Your task to perform on an android device: Open Yahoo.com Image 0: 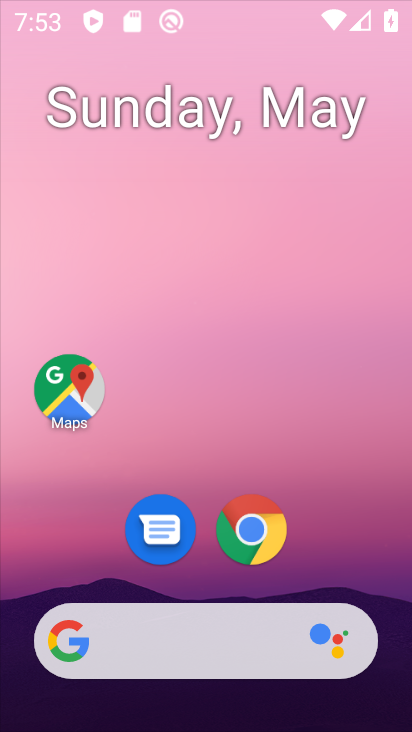
Step 0: click (269, 109)
Your task to perform on an android device: Open Yahoo.com Image 1: 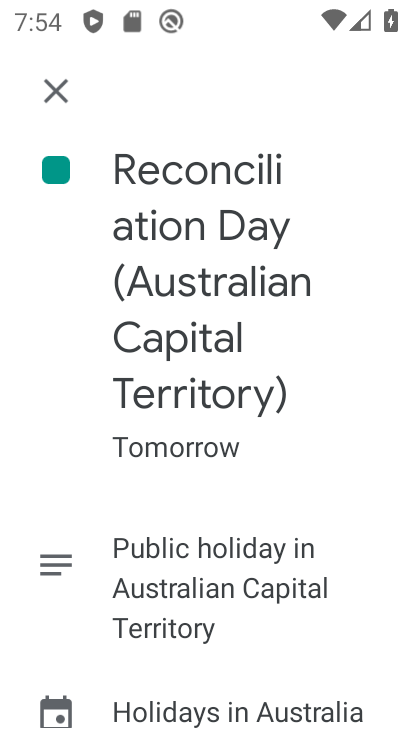
Step 1: press back button
Your task to perform on an android device: Open Yahoo.com Image 2: 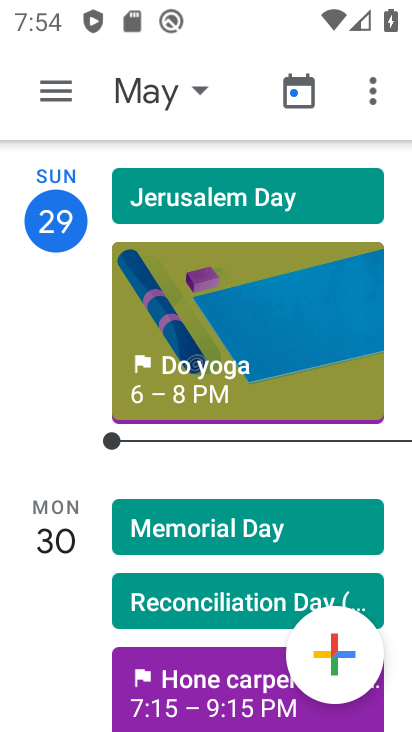
Step 2: press back button
Your task to perform on an android device: Open Yahoo.com Image 3: 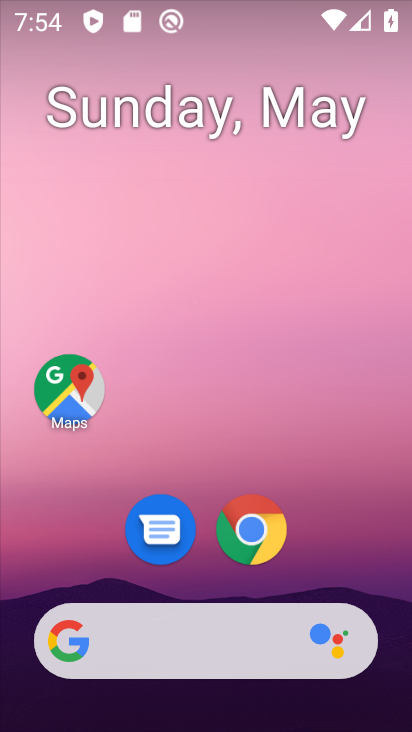
Step 3: click (244, 516)
Your task to perform on an android device: Open Yahoo.com Image 4: 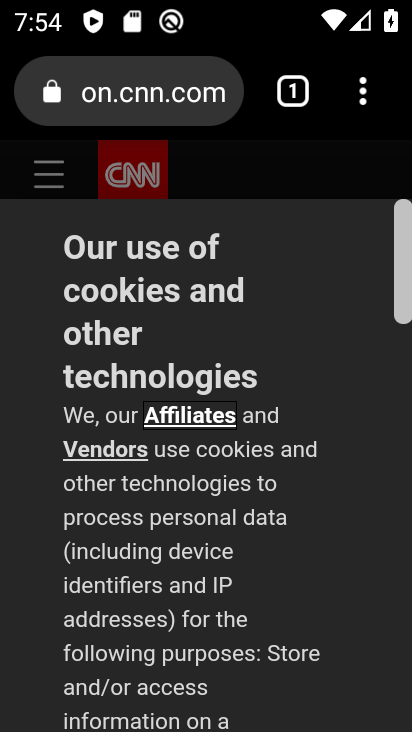
Step 4: click (284, 91)
Your task to perform on an android device: Open Yahoo.com Image 5: 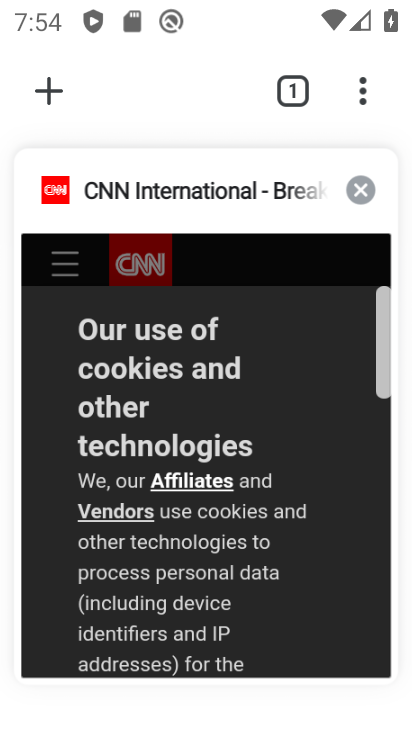
Step 5: click (50, 85)
Your task to perform on an android device: Open Yahoo.com Image 6: 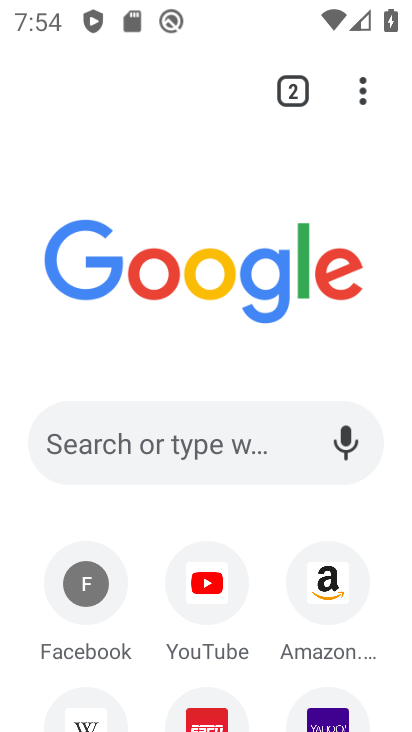
Step 6: click (309, 698)
Your task to perform on an android device: Open Yahoo.com Image 7: 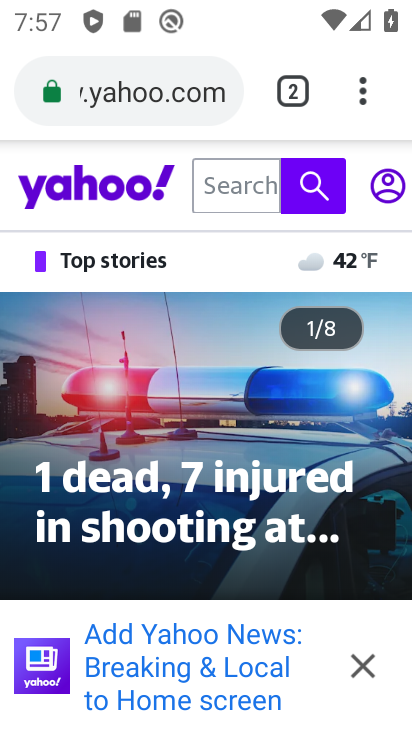
Step 7: task complete